Your task to perform on an android device: Search for pizza restaurants on Maps Image 0: 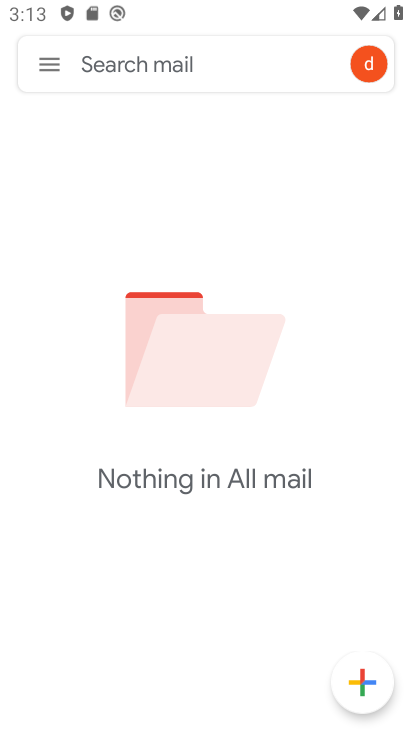
Step 0: press home button
Your task to perform on an android device: Search for pizza restaurants on Maps Image 1: 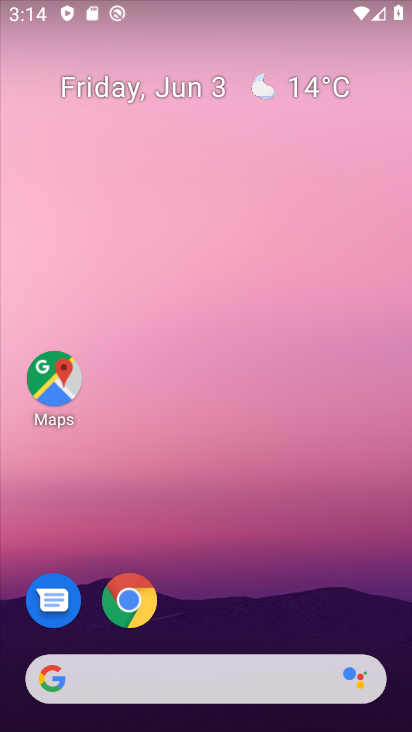
Step 1: drag from (260, 572) to (250, 443)
Your task to perform on an android device: Search for pizza restaurants on Maps Image 2: 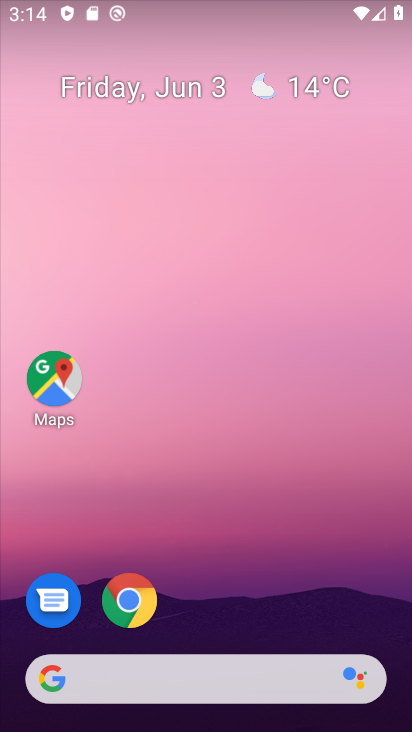
Step 2: click (61, 383)
Your task to perform on an android device: Search for pizza restaurants on Maps Image 3: 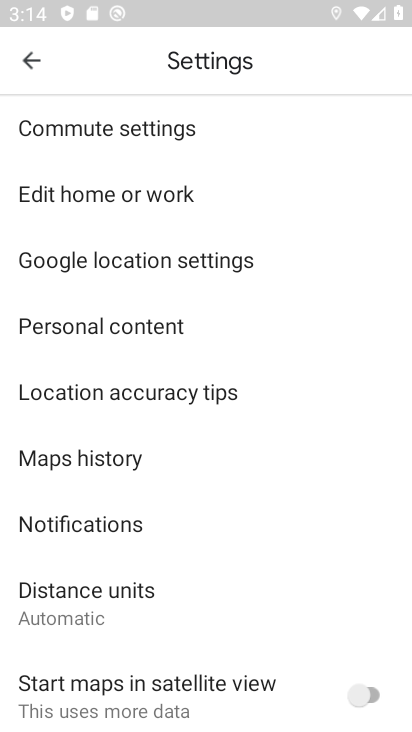
Step 3: click (38, 72)
Your task to perform on an android device: Search for pizza restaurants on Maps Image 4: 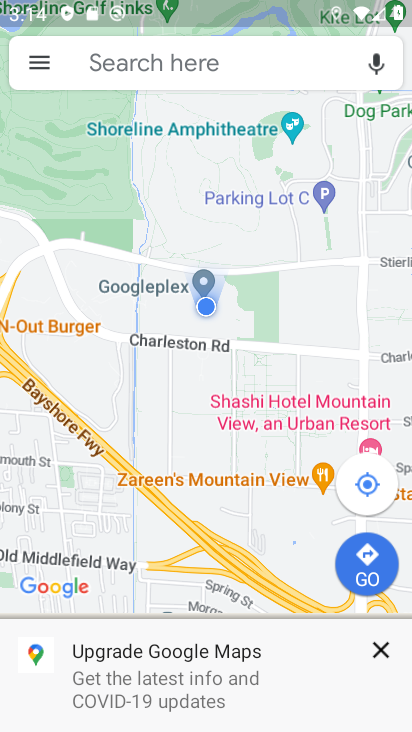
Step 4: click (166, 73)
Your task to perform on an android device: Search for pizza restaurants on Maps Image 5: 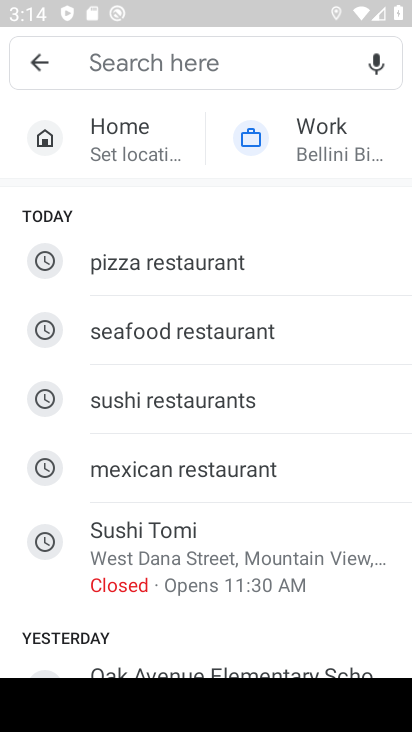
Step 5: click (192, 258)
Your task to perform on an android device: Search for pizza restaurants on Maps Image 6: 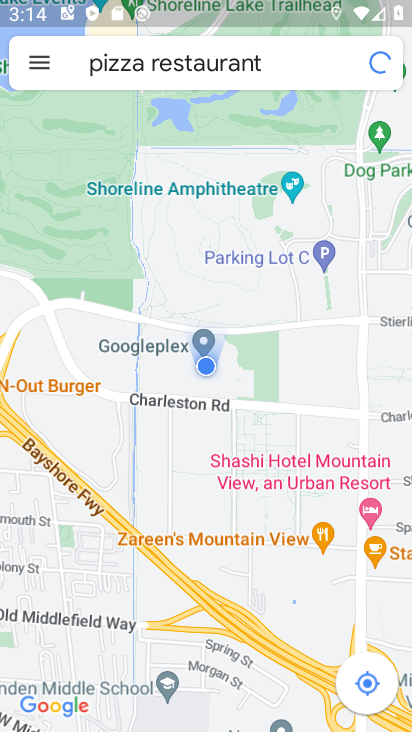
Step 6: task complete